Your task to perform on an android device: install app "NewsBreak: Local News & Alerts" Image 0: 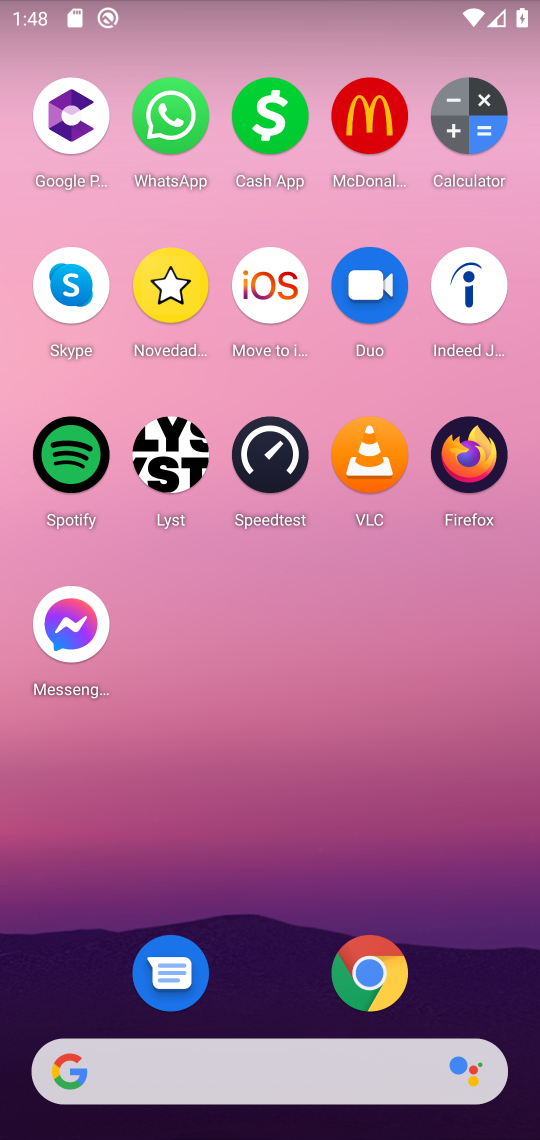
Step 0: drag from (262, 1018) to (297, 22)
Your task to perform on an android device: install app "NewsBreak: Local News & Alerts" Image 1: 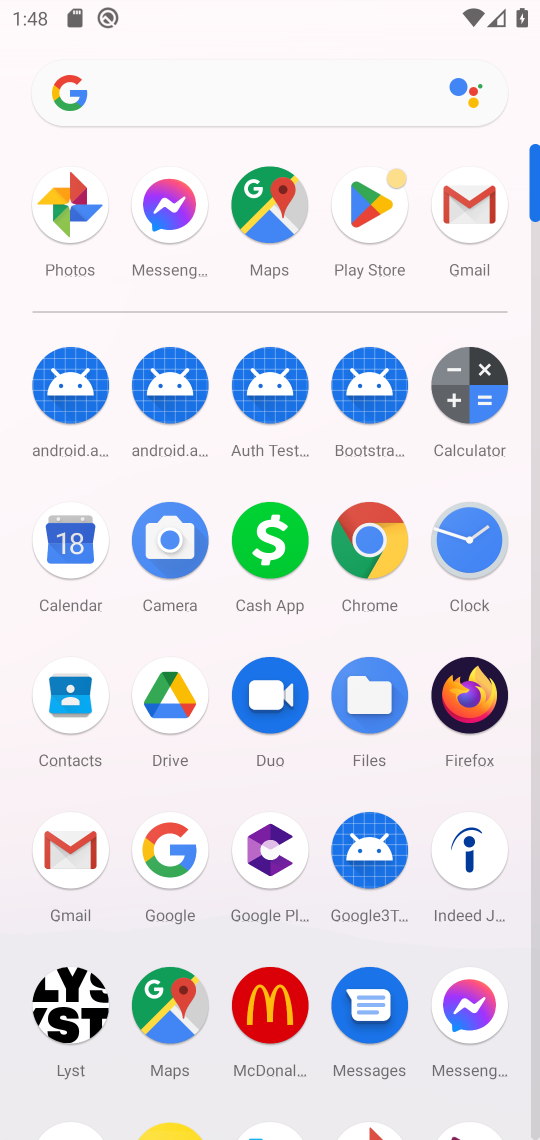
Step 1: click (372, 243)
Your task to perform on an android device: install app "NewsBreak: Local News & Alerts" Image 2: 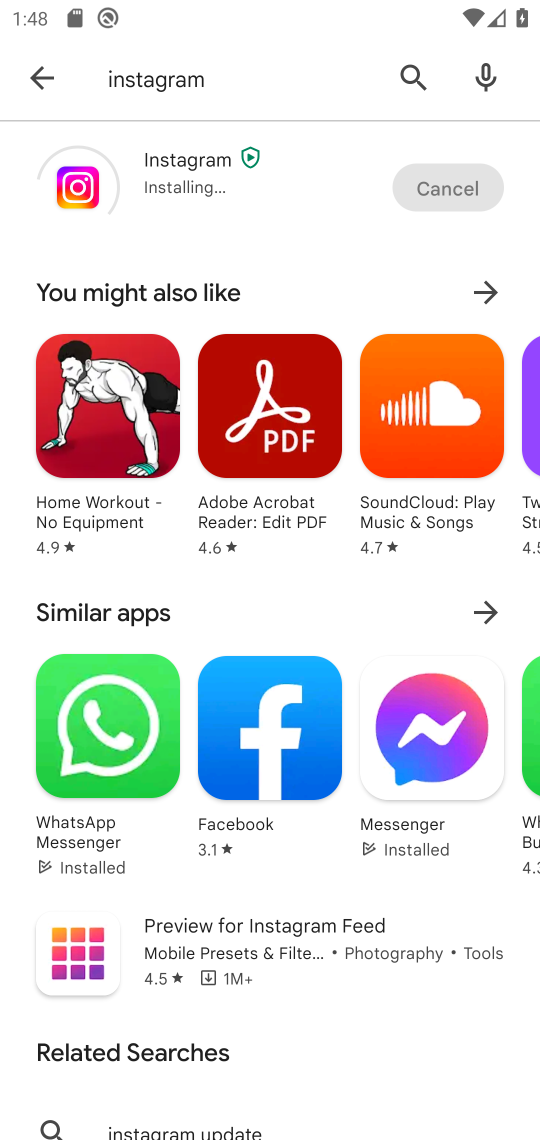
Step 2: click (408, 74)
Your task to perform on an android device: install app "NewsBreak: Local News & Alerts" Image 3: 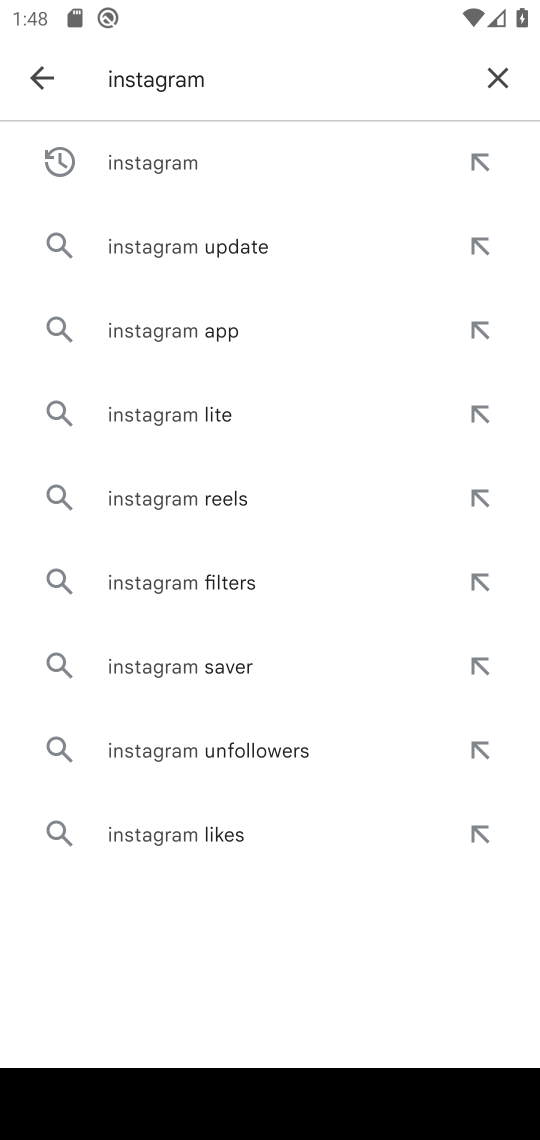
Step 3: click (497, 73)
Your task to perform on an android device: install app "NewsBreak: Local News & Alerts" Image 4: 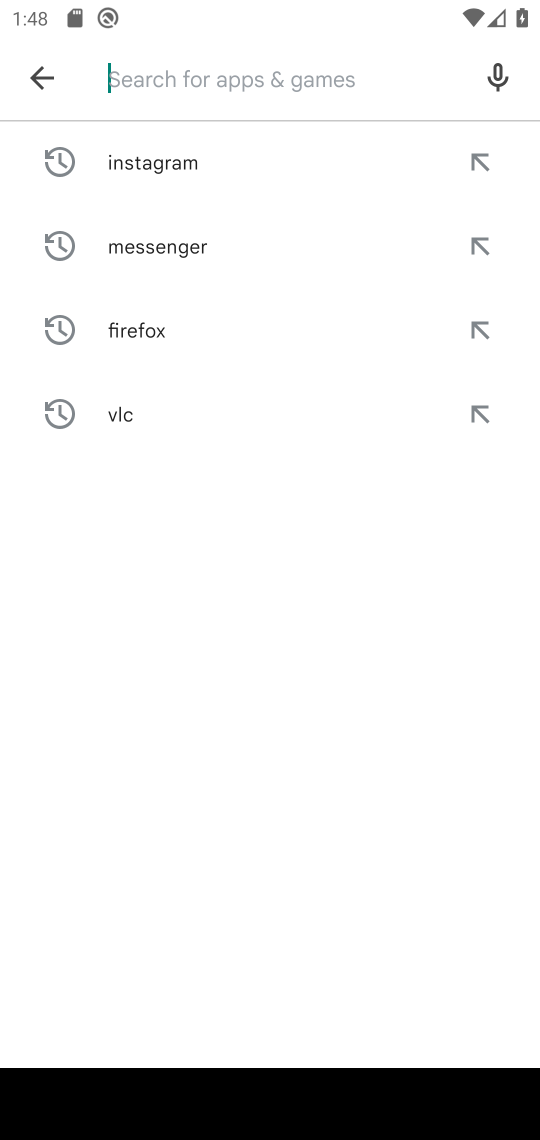
Step 4: type "newsbreak"
Your task to perform on an android device: install app "NewsBreak: Local News & Alerts" Image 5: 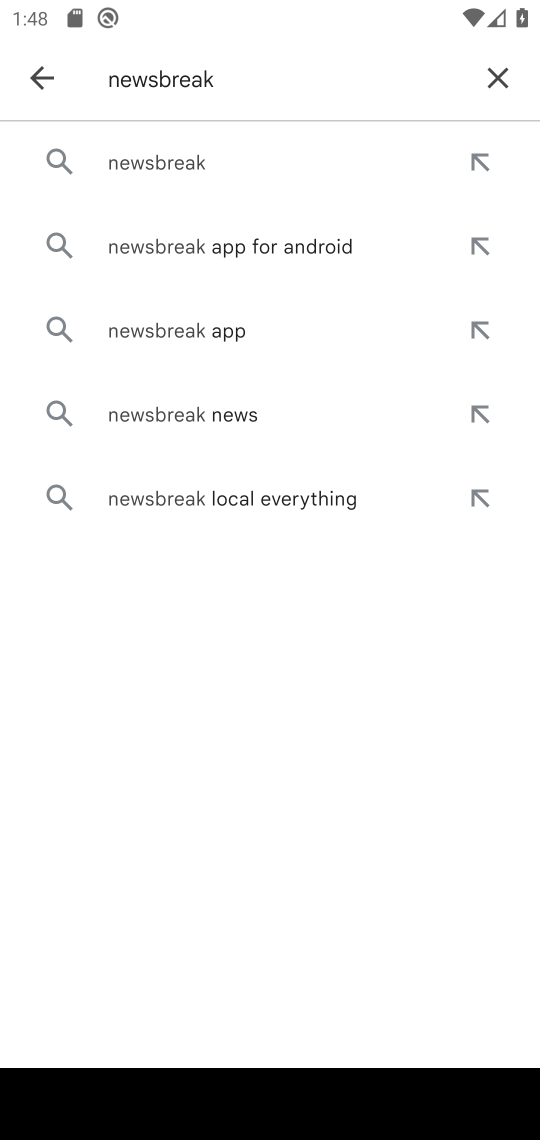
Step 5: click (256, 174)
Your task to perform on an android device: install app "NewsBreak: Local News & Alerts" Image 6: 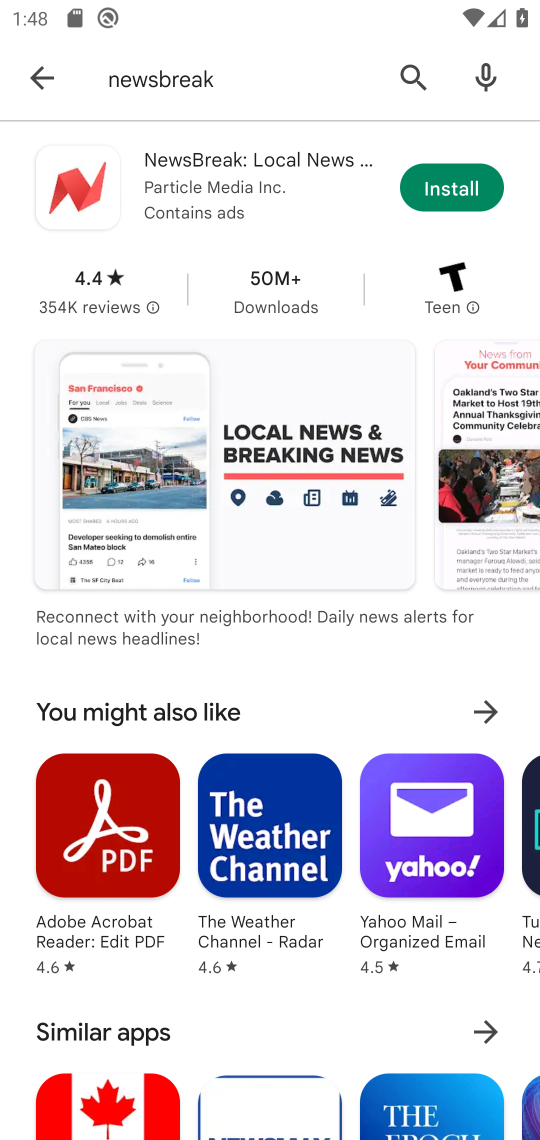
Step 6: click (447, 187)
Your task to perform on an android device: install app "NewsBreak: Local News & Alerts" Image 7: 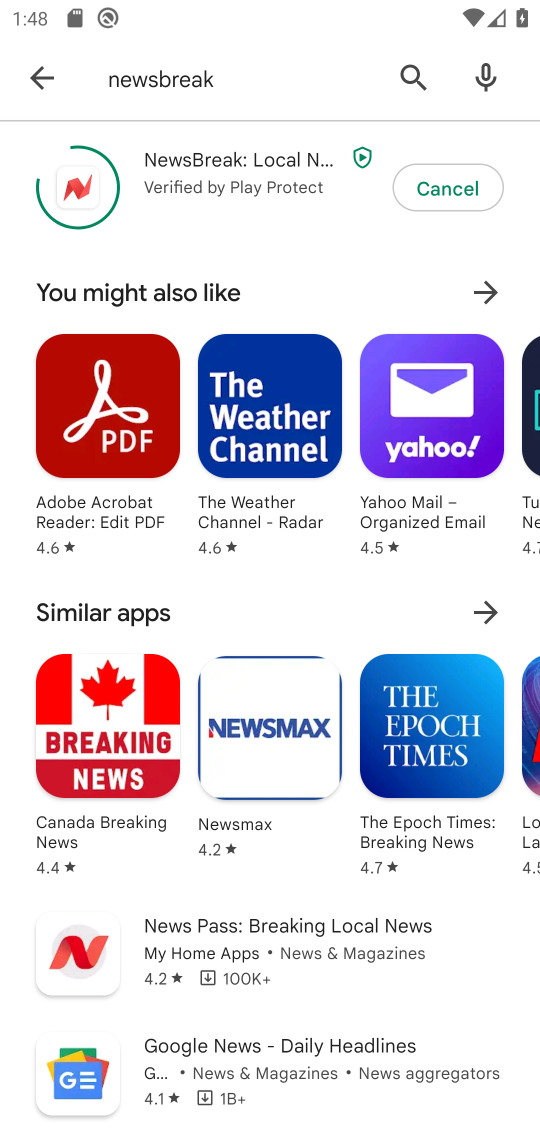
Step 7: task complete